Your task to perform on an android device: Go to Yahoo.com Image 0: 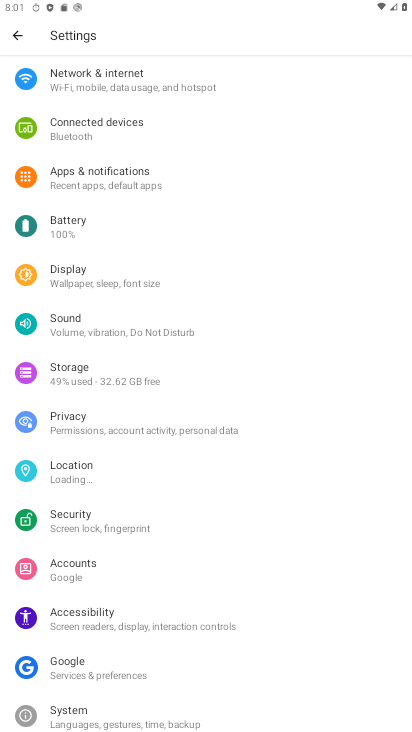
Step 0: press back button
Your task to perform on an android device: Go to Yahoo.com Image 1: 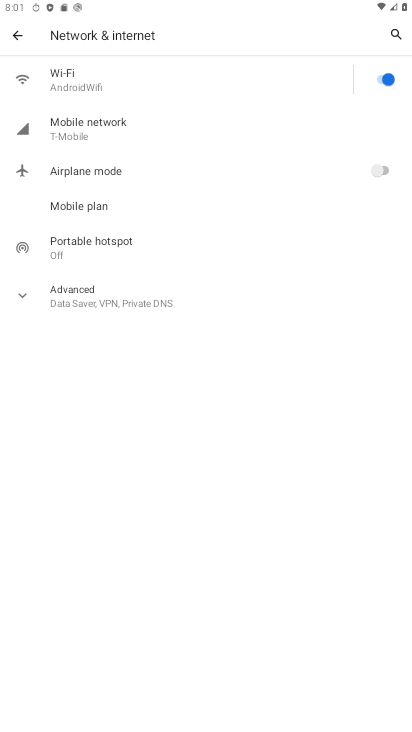
Step 1: click (16, 27)
Your task to perform on an android device: Go to Yahoo.com Image 2: 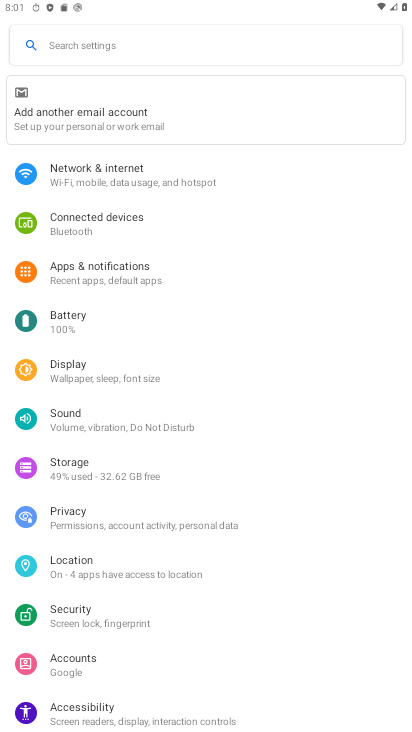
Step 2: press back button
Your task to perform on an android device: Go to Yahoo.com Image 3: 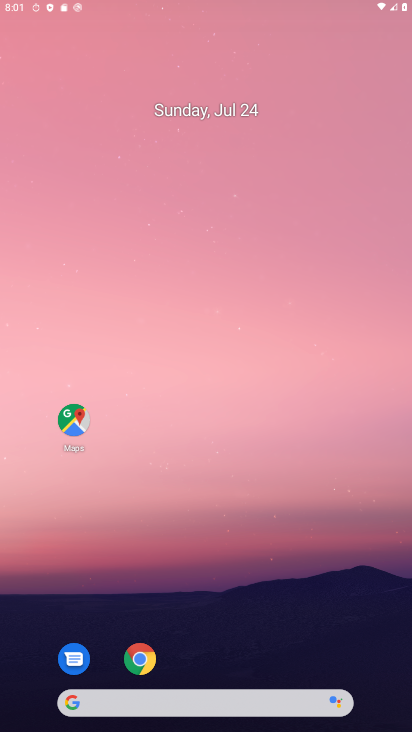
Step 3: press back button
Your task to perform on an android device: Go to Yahoo.com Image 4: 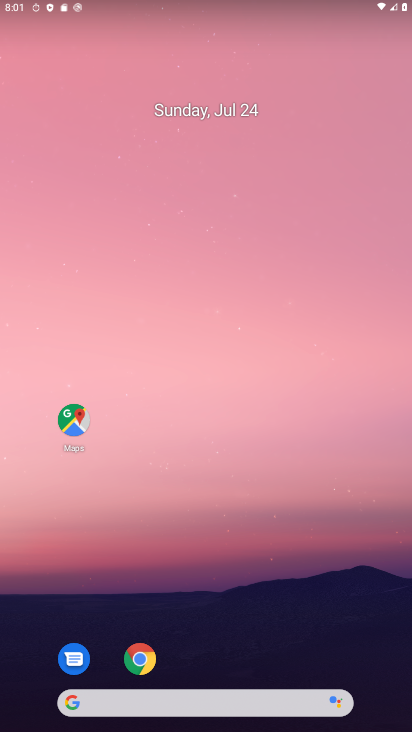
Step 4: drag from (228, 657) to (189, 153)
Your task to perform on an android device: Go to Yahoo.com Image 5: 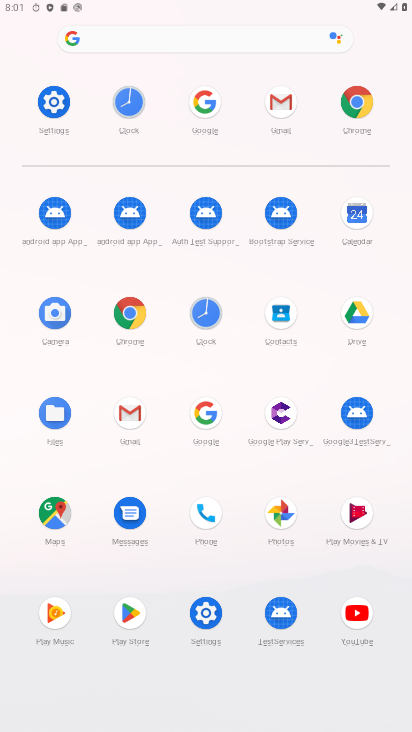
Step 5: click (365, 108)
Your task to perform on an android device: Go to Yahoo.com Image 6: 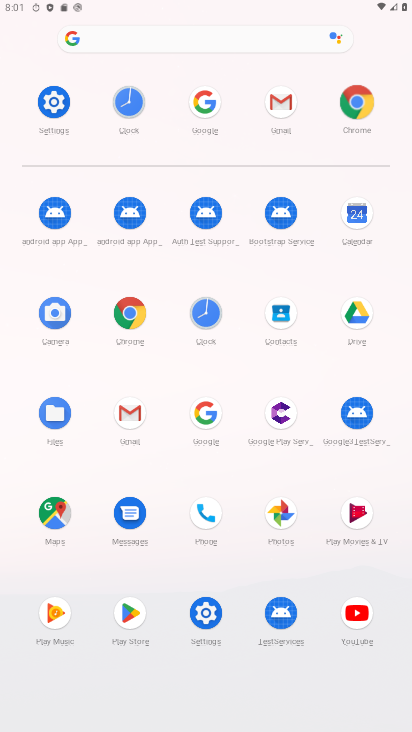
Step 6: click (365, 108)
Your task to perform on an android device: Go to Yahoo.com Image 7: 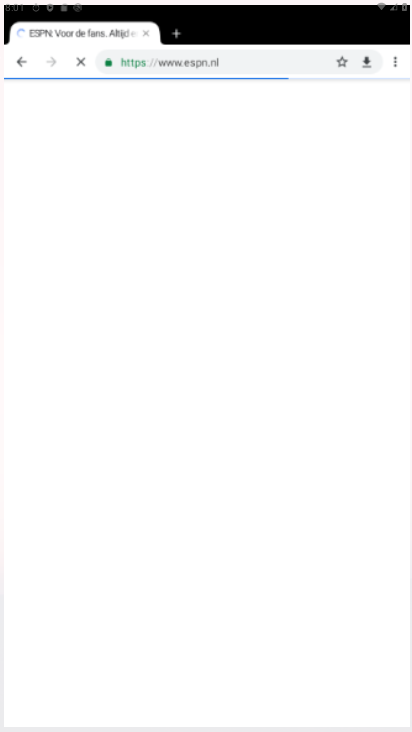
Step 7: click (365, 108)
Your task to perform on an android device: Go to Yahoo.com Image 8: 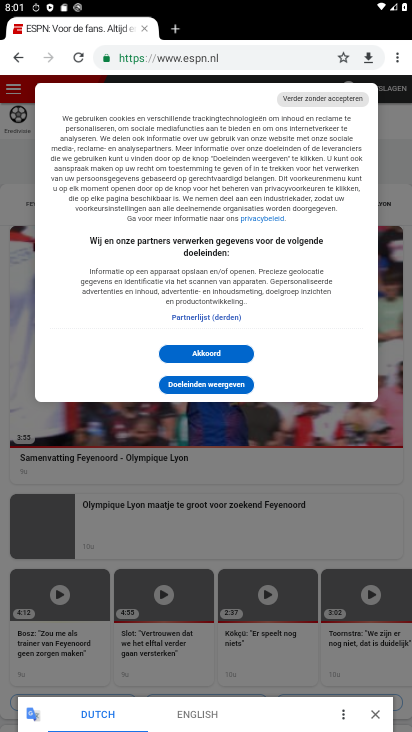
Step 8: click (15, 65)
Your task to perform on an android device: Go to Yahoo.com Image 9: 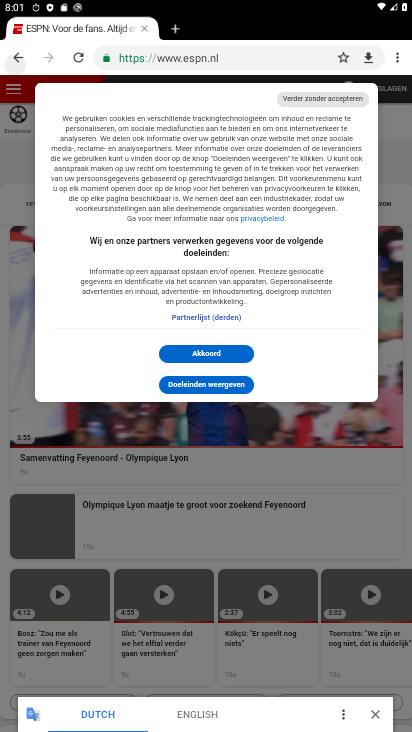
Step 9: click (15, 65)
Your task to perform on an android device: Go to Yahoo.com Image 10: 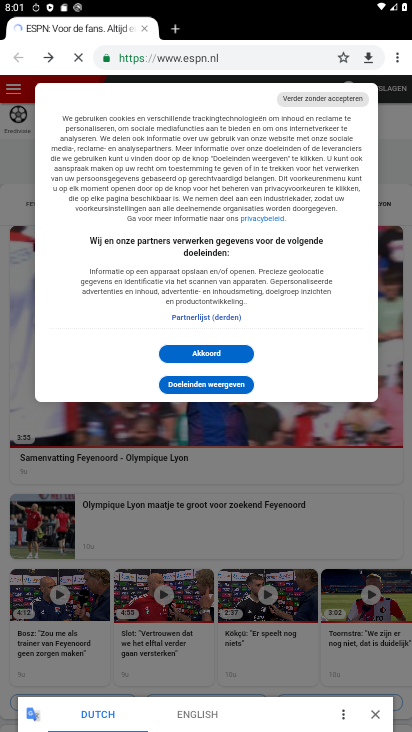
Step 10: click (19, 66)
Your task to perform on an android device: Go to Yahoo.com Image 11: 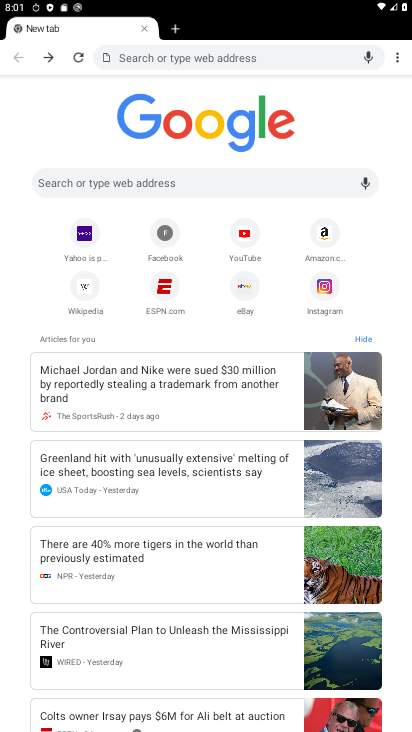
Step 11: click (75, 232)
Your task to perform on an android device: Go to Yahoo.com Image 12: 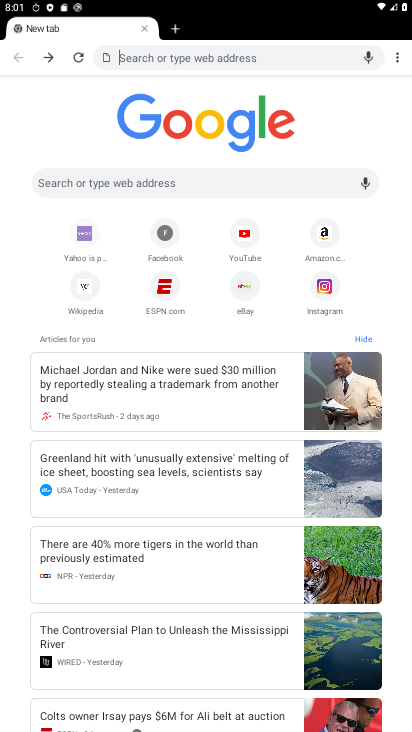
Step 12: click (75, 232)
Your task to perform on an android device: Go to Yahoo.com Image 13: 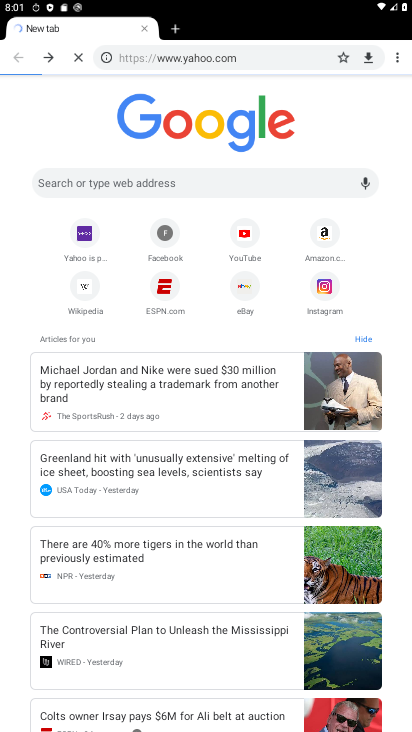
Step 13: click (76, 232)
Your task to perform on an android device: Go to Yahoo.com Image 14: 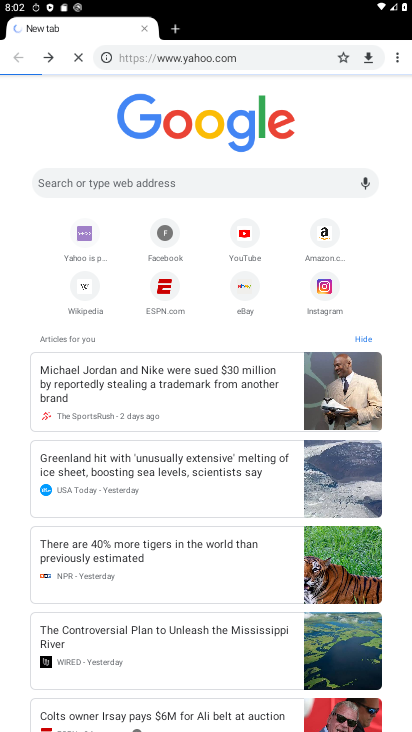
Step 14: click (76, 232)
Your task to perform on an android device: Go to Yahoo.com Image 15: 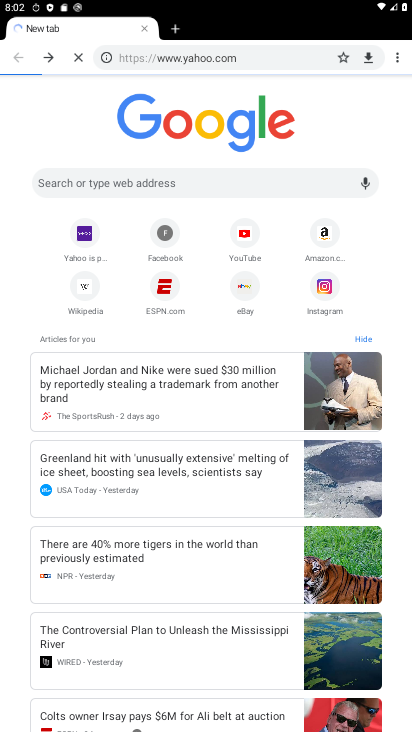
Step 15: click (76, 232)
Your task to perform on an android device: Go to Yahoo.com Image 16: 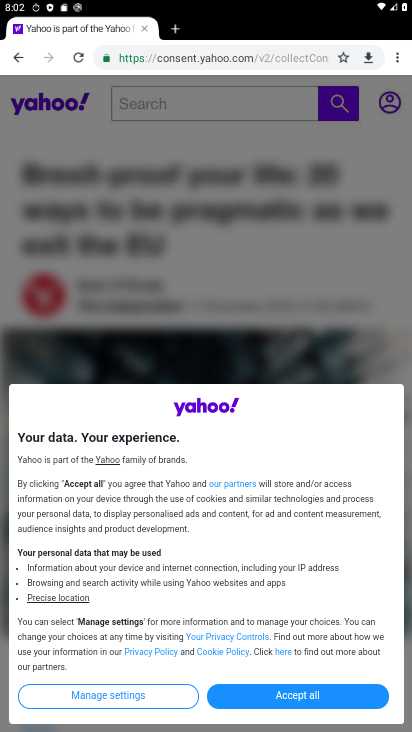
Step 16: task complete